Your task to perform on an android device: change timer sound Image 0: 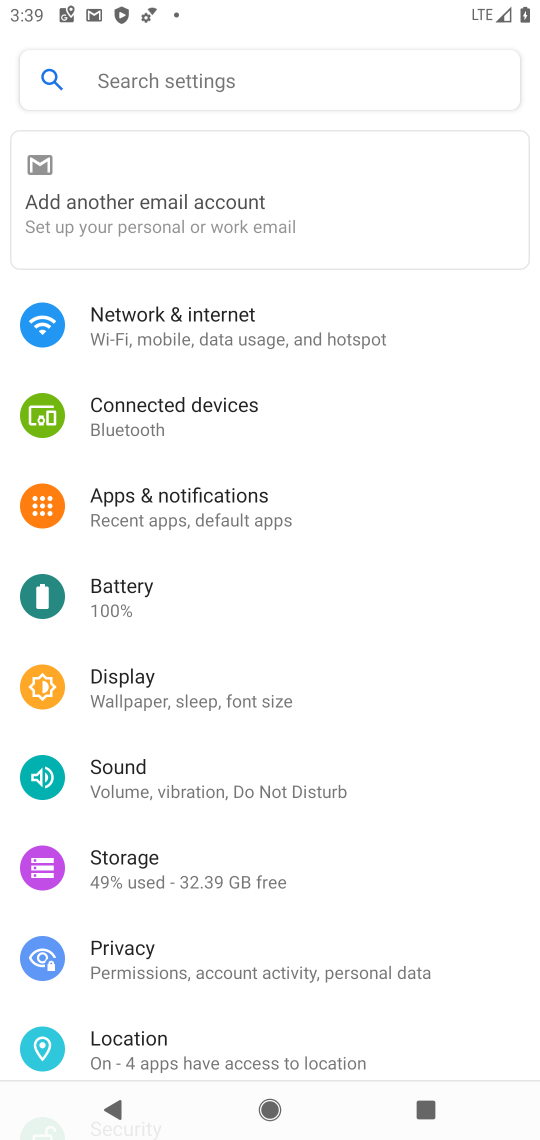
Step 0: click (260, 959)
Your task to perform on an android device: change timer sound Image 1: 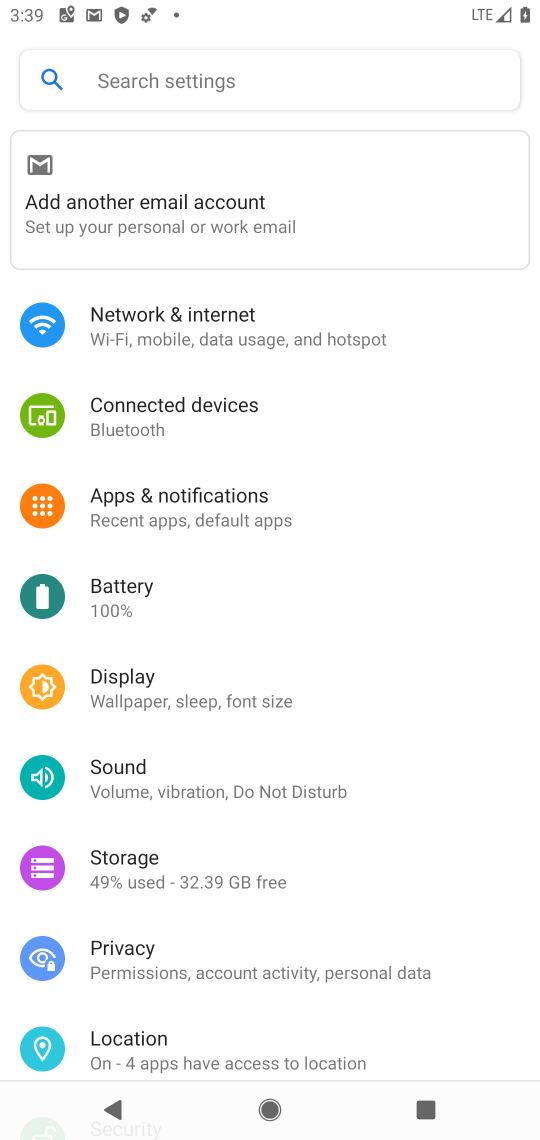
Step 1: press home button
Your task to perform on an android device: change timer sound Image 2: 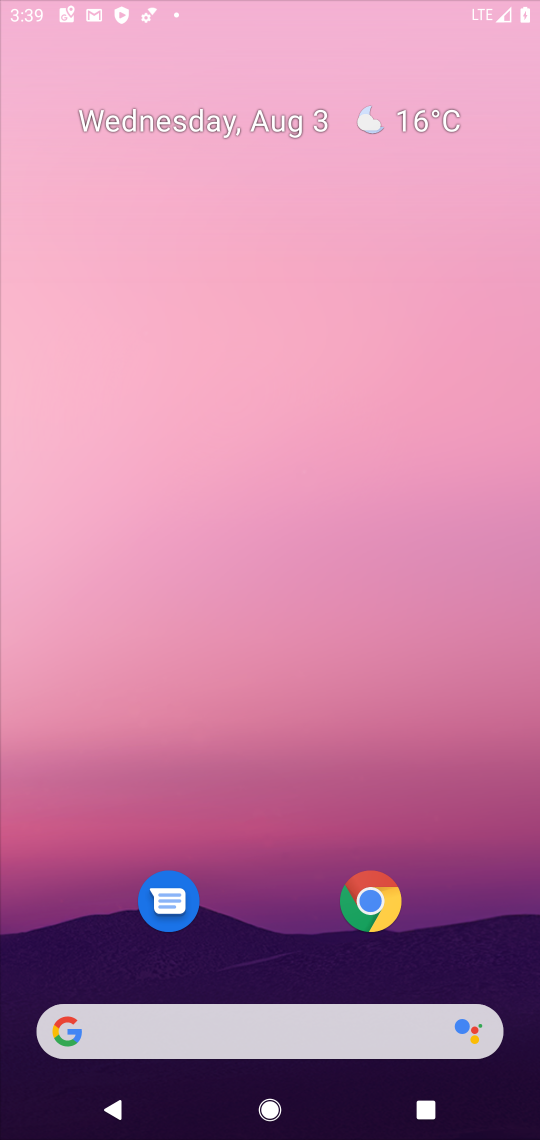
Step 2: drag from (238, 1022) to (255, 341)
Your task to perform on an android device: change timer sound Image 3: 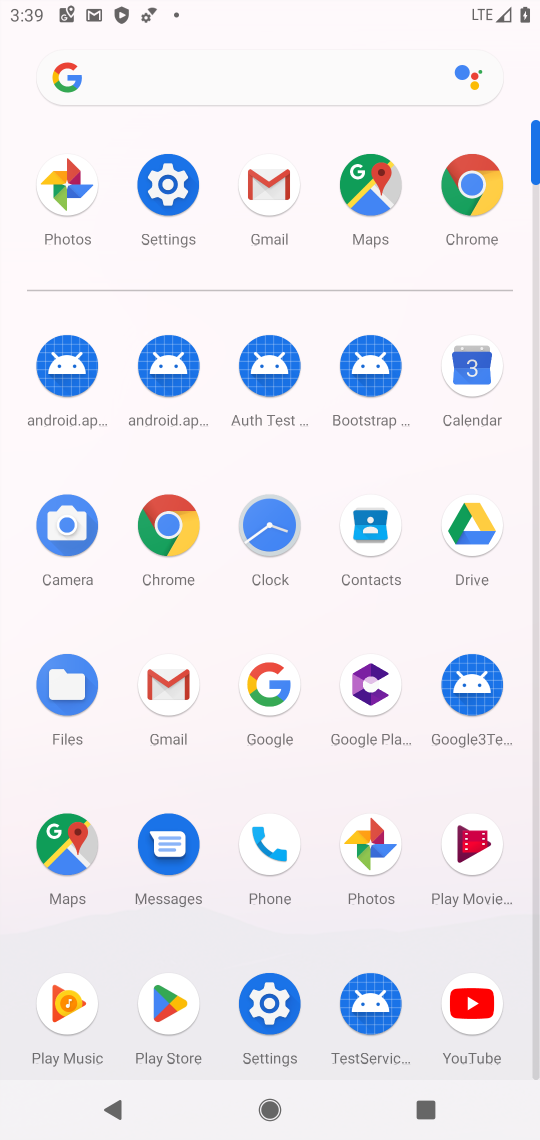
Step 3: click (263, 502)
Your task to perform on an android device: change timer sound Image 4: 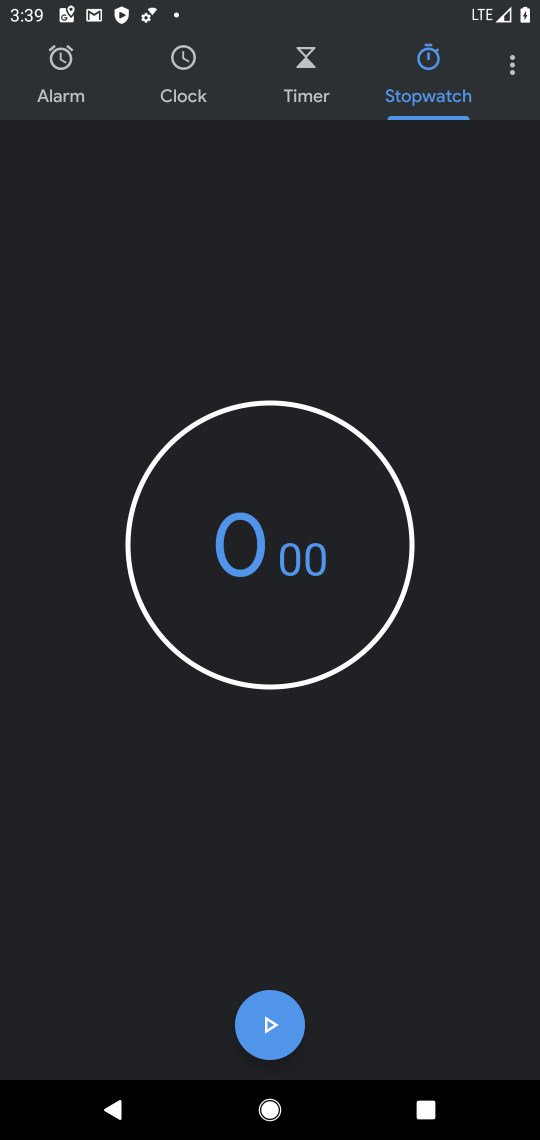
Step 4: click (530, 55)
Your task to perform on an android device: change timer sound Image 5: 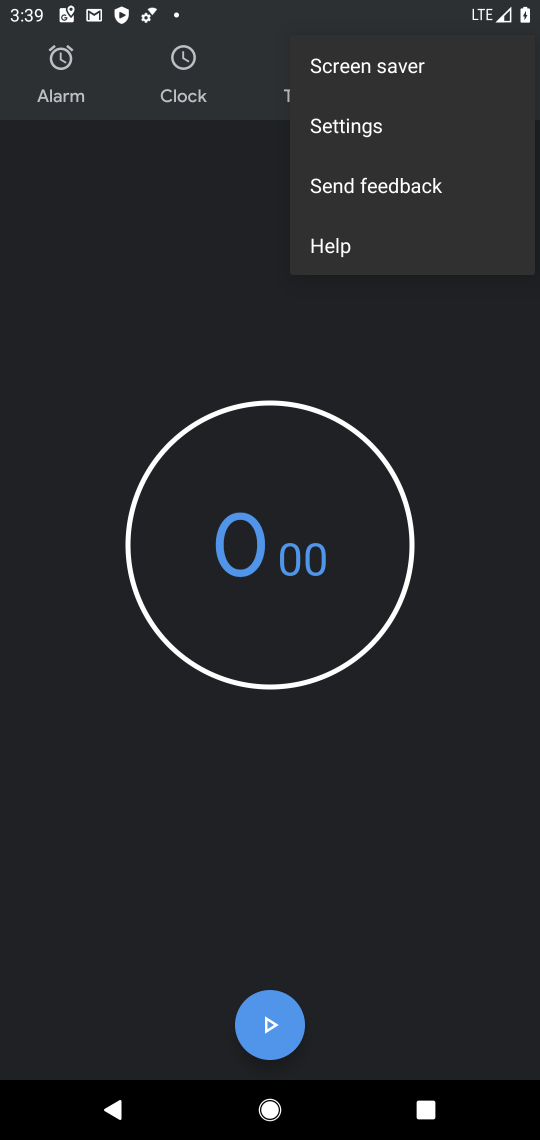
Step 5: click (386, 132)
Your task to perform on an android device: change timer sound Image 6: 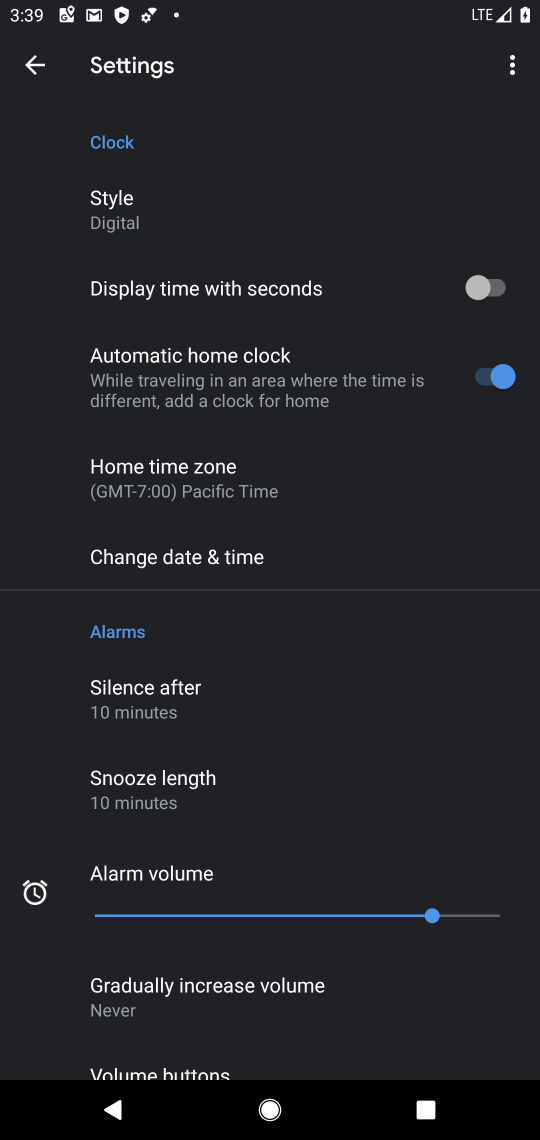
Step 6: drag from (222, 912) to (241, 344)
Your task to perform on an android device: change timer sound Image 7: 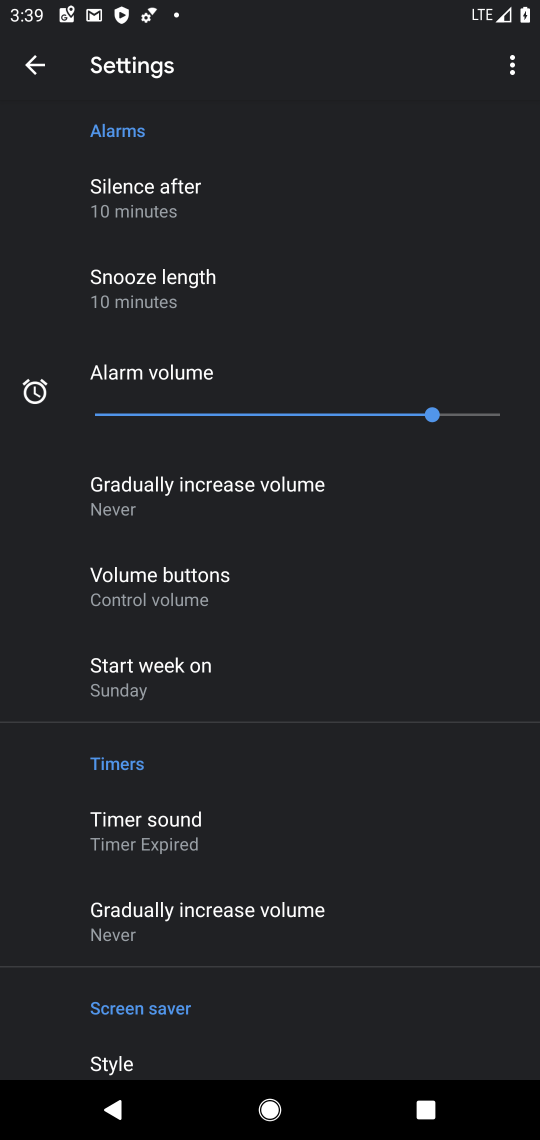
Step 7: click (197, 822)
Your task to perform on an android device: change timer sound Image 8: 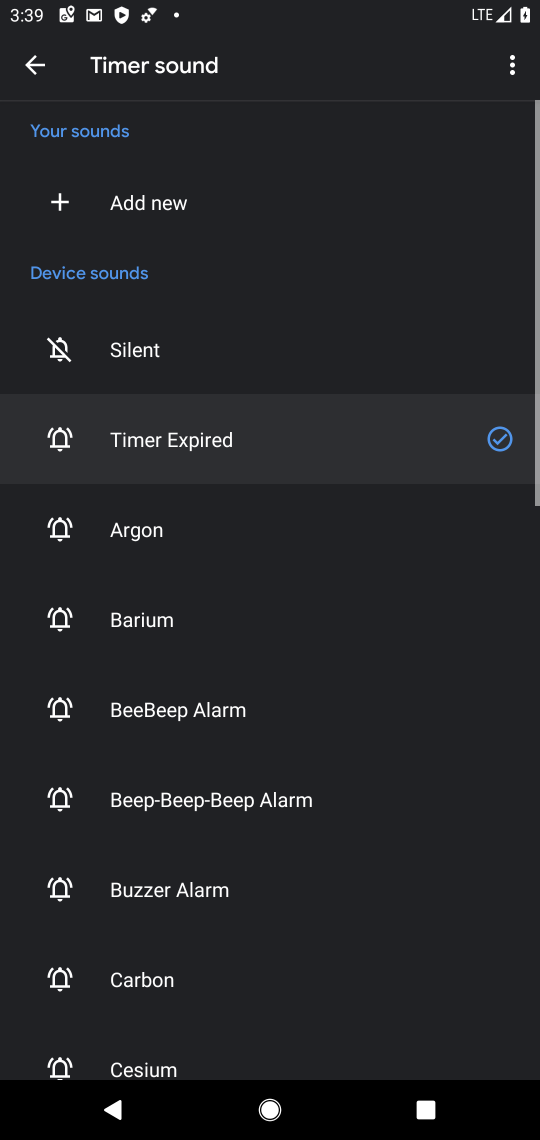
Step 8: click (162, 724)
Your task to perform on an android device: change timer sound Image 9: 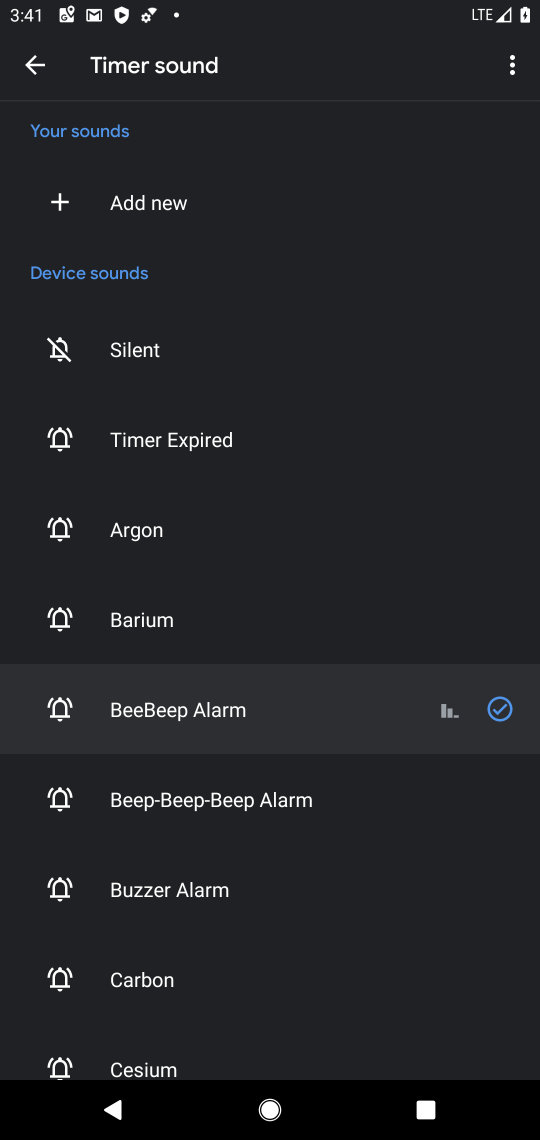
Step 9: task complete